Your task to perform on an android device: Open Google Chrome Image 0: 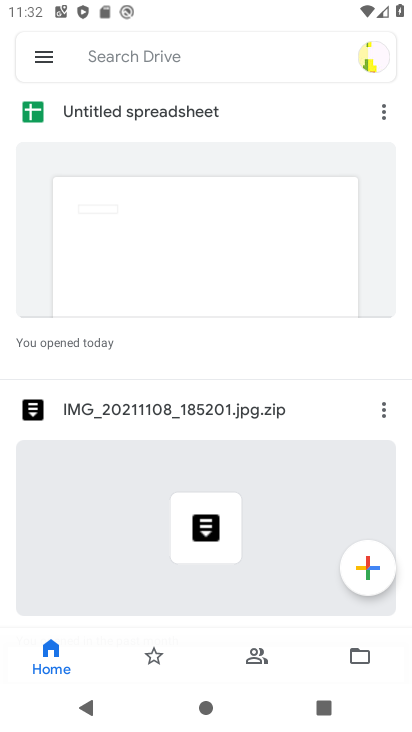
Step 0: press home button
Your task to perform on an android device: Open Google Chrome Image 1: 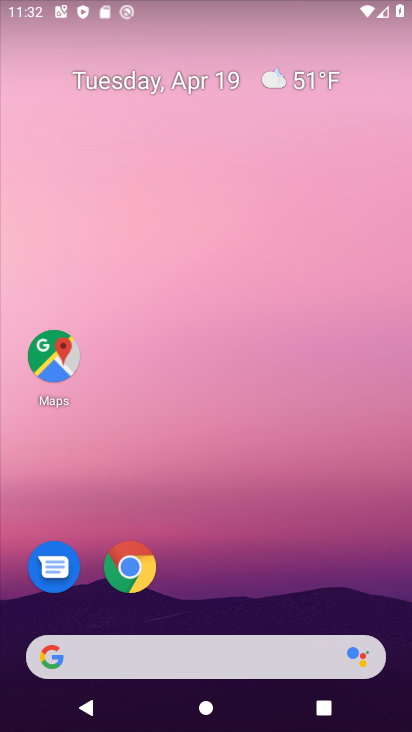
Step 1: click (132, 571)
Your task to perform on an android device: Open Google Chrome Image 2: 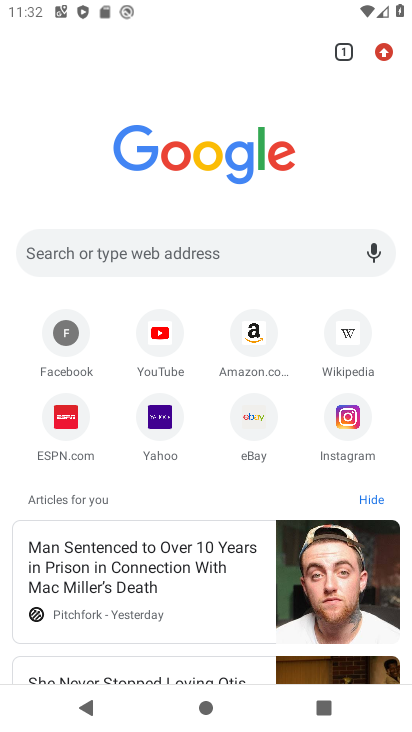
Step 2: task complete